Your task to perform on an android device: Open the calendar and show me this week's events Image 0: 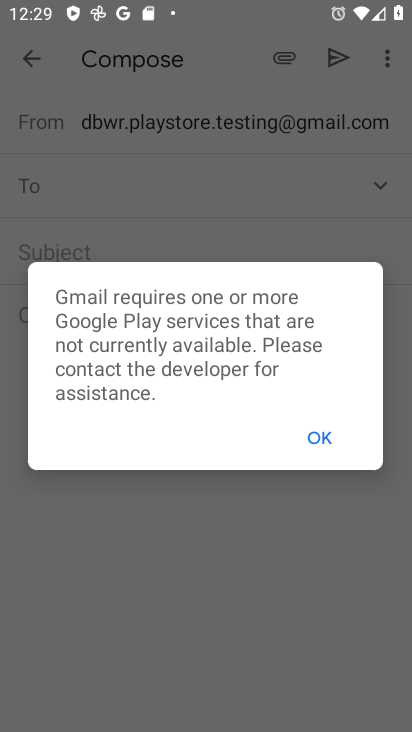
Step 0: click (320, 435)
Your task to perform on an android device: Open the calendar and show me this week's events Image 1: 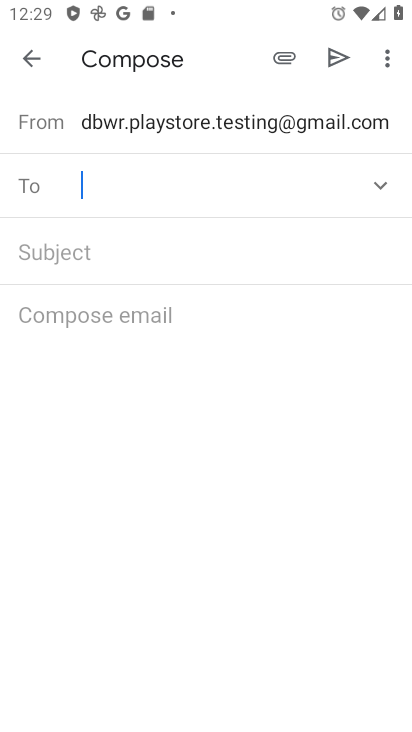
Step 1: click (24, 51)
Your task to perform on an android device: Open the calendar and show me this week's events Image 2: 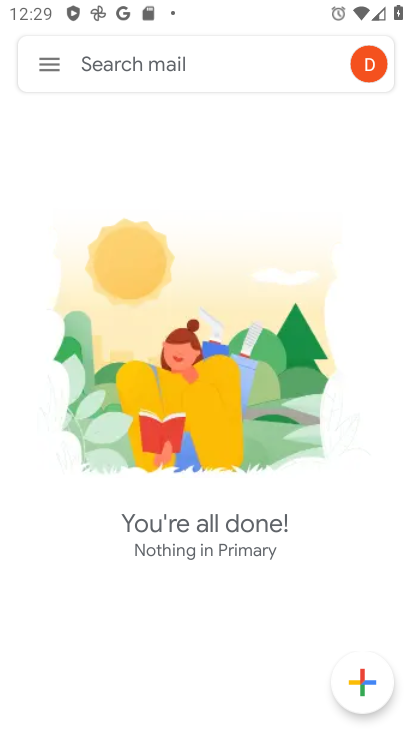
Step 2: press back button
Your task to perform on an android device: Open the calendar and show me this week's events Image 3: 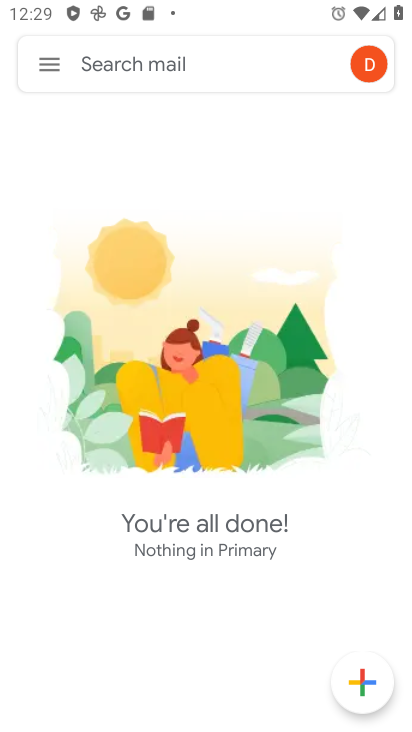
Step 3: press back button
Your task to perform on an android device: Open the calendar and show me this week's events Image 4: 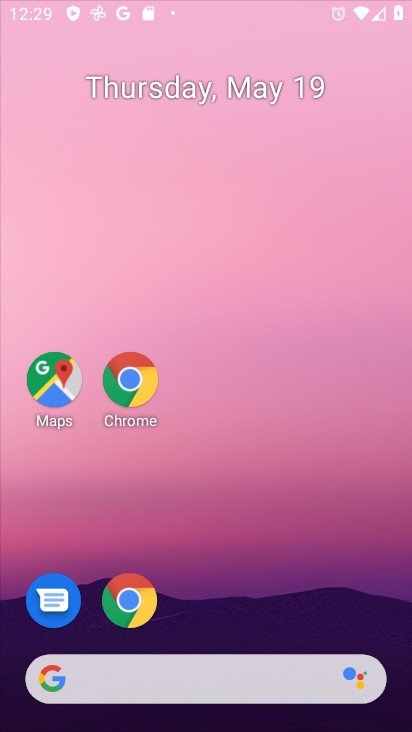
Step 4: press back button
Your task to perform on an android device: Open the calendar and show me this week's events Image 5: 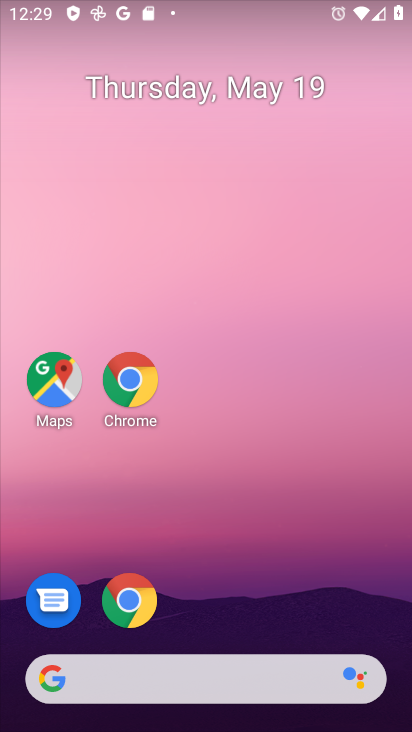
Step 5: drag from (296, 588) to (151, 23)
Your task to perform on an android device: Open the calendar and show me this week's events Image 6: 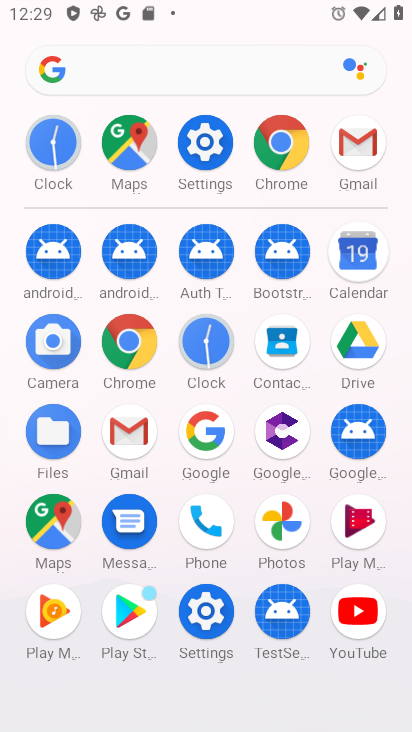
Step 6: click (344, 244)
Your task to perform on an android device: Open the calendar and show me this week's events Image 7: 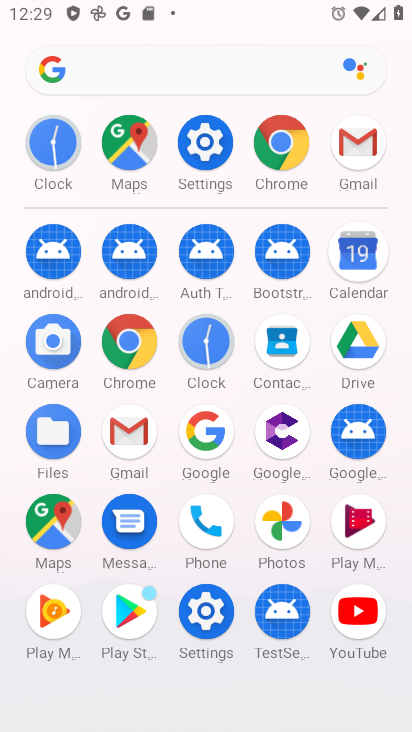
Step 7: click (345, 245)
Your task to perform on an android device: Open the calendar and show me this week's events Image 8: 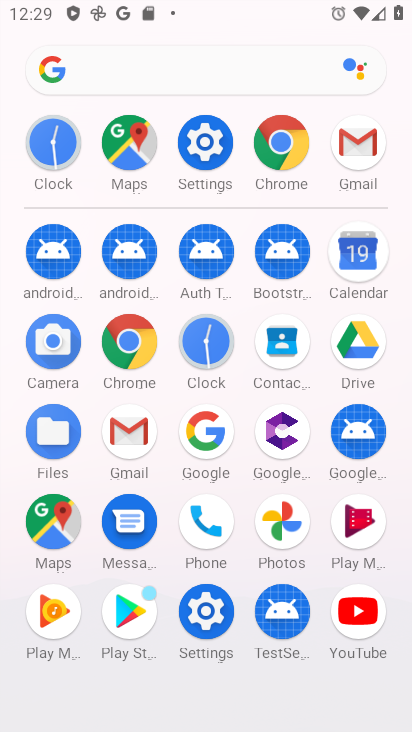
Step 8: click (345, 245)
Your task to perform on an android device: Open the calendar and show me this week's events Image 9: 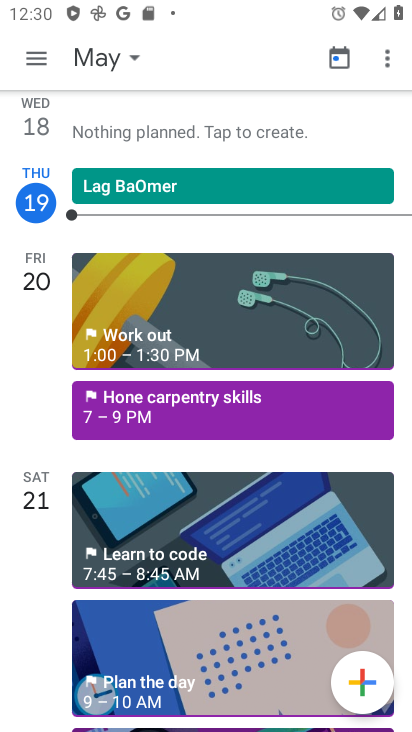
Step 9: click (115, 179)
Your task to perform on an android device: Open the calendar and show me this week's events Image 10: 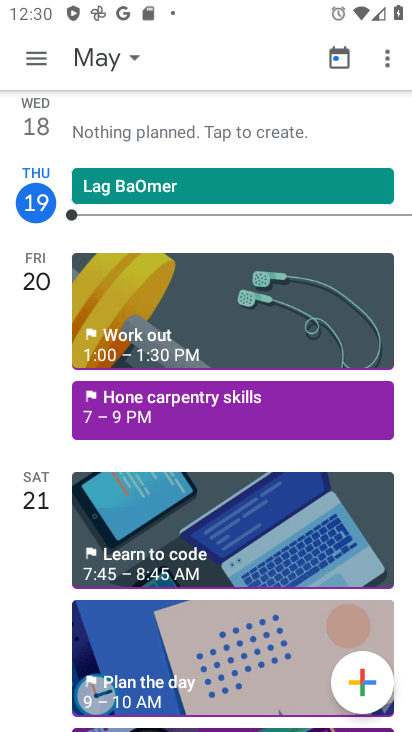
Step 10: click (128, 319)
Your task to perform on an android device: Open the calendar and show me this week's events Image 11: 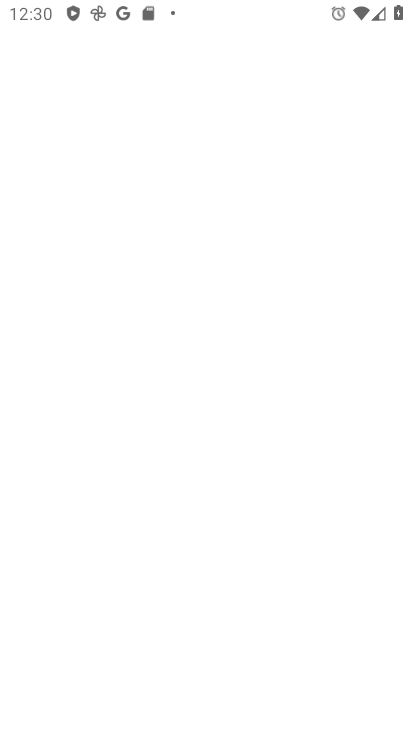
Step 11: click (128, 319)
Your task to perform on an android device: Open the calendar and show me this week's events Image 12: 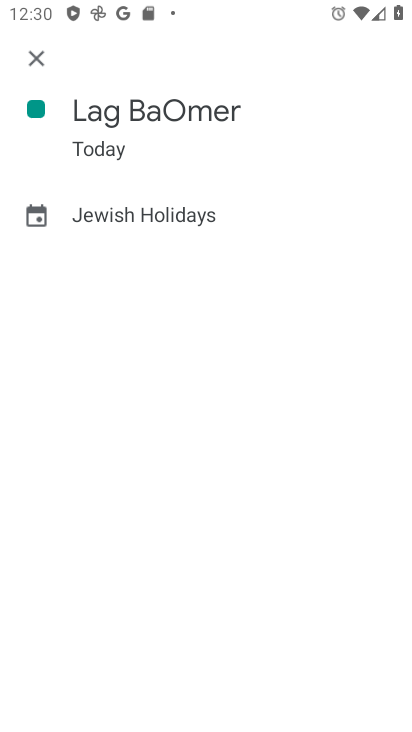
Step 12: click (129, 317)
Your task to perform on an android device: Open the calendar and show me this week's events Image 13: 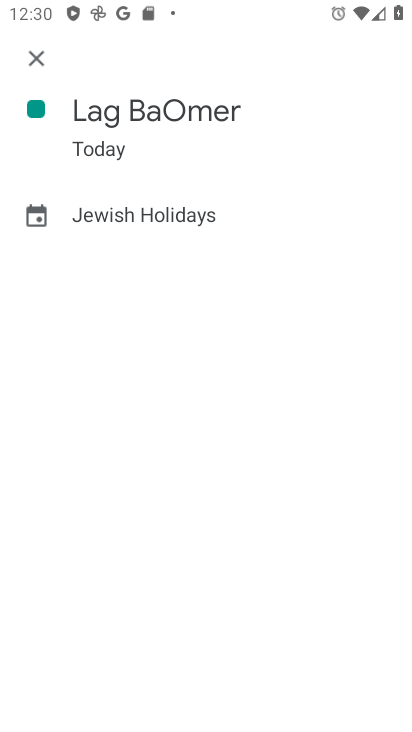
Step 13: click (130, 317)
Your task to perform on an android device: Open the calendar and show me this week's events Image 14: 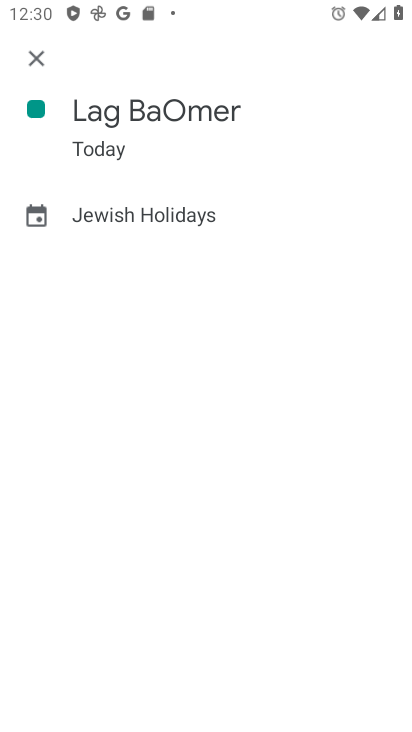
Step 14: drag from (147, 389) to (143, 181)
Your task to perform on an android device: Open the calendar and show me this week's events Image 15: 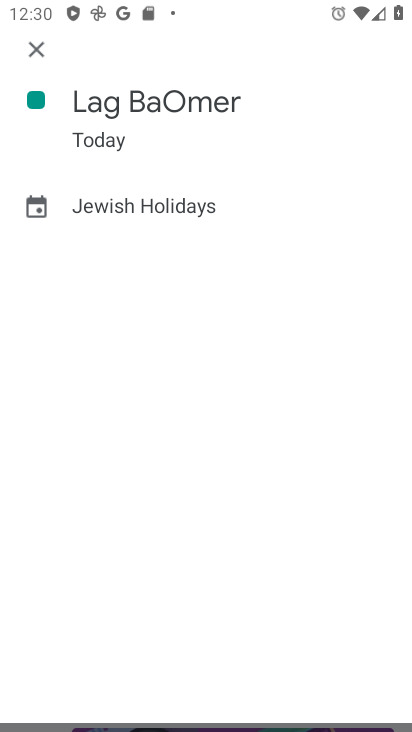
Step 15: drag from (163, 380) to (150, 127)
Your task to perform on an android device: Open the calendar and show me this week's events Image 16: 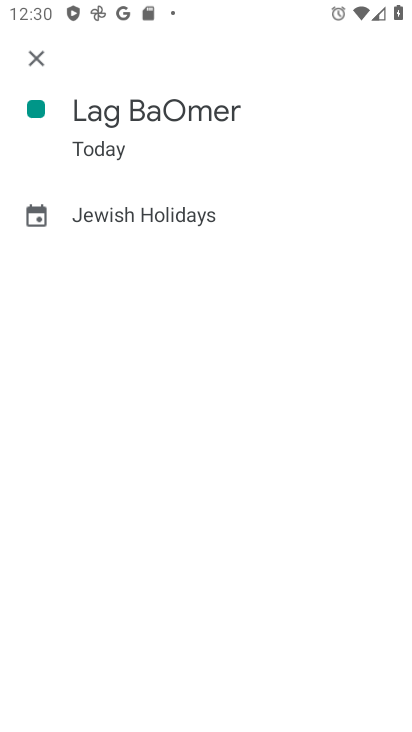
Step 16: drag from (207, 370) to (163, 60)
Your task to perform on an android device: Open the calendar and show me this week's events Image 17: 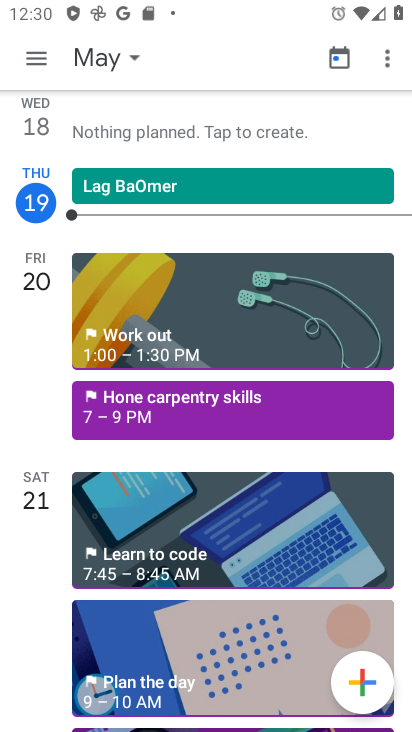
Step 17: click (99, 134)
Your task to perform on an android device: Open the calendar and show me this week's events Image 18: 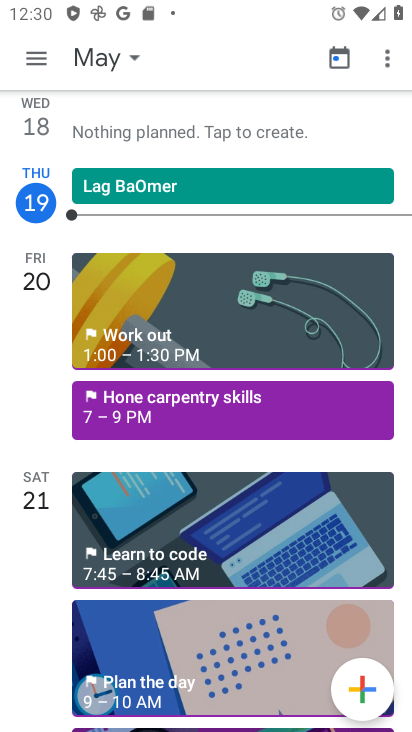
Step 18: task complete